Your task to perform on an android device: Go to eBay Image 0: 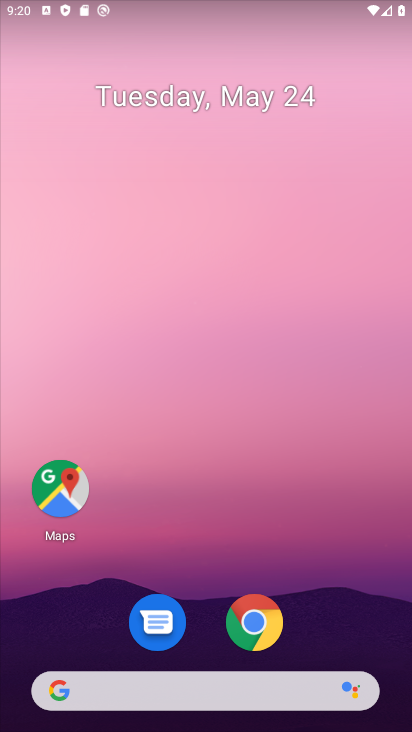
Step 0: press home button
Your task to perform on an android device: Go to eBay Image 1: 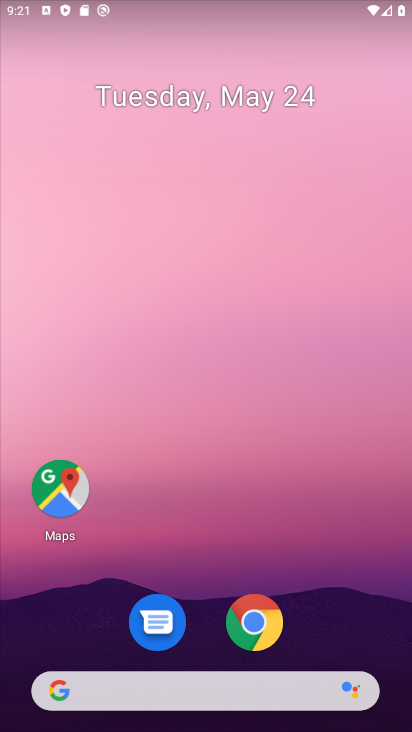
Step 1: drag from (308, 722) to (312, 42)
Your task to perform on an android device: Go to eBay Image 2: 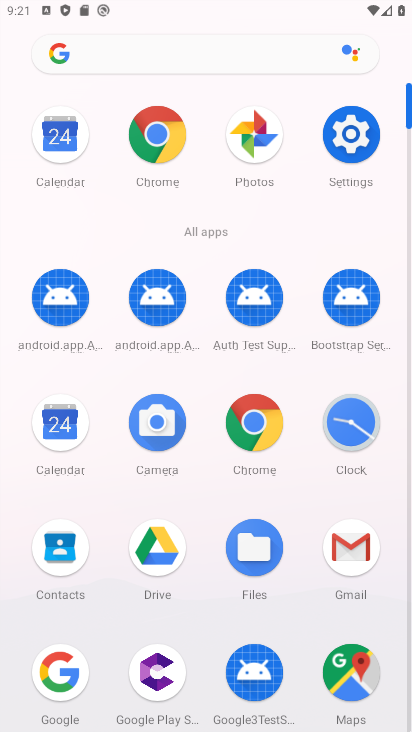
Step 2: click (171, 150)
Your task to perform on an android device: Go to eBay Image 3: 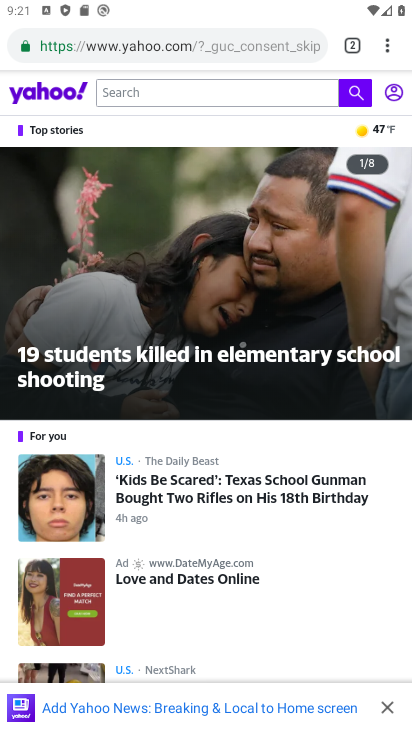
Step 3: click (179, 44)
Your task to perform on an android device: Go to eBay Image 4: 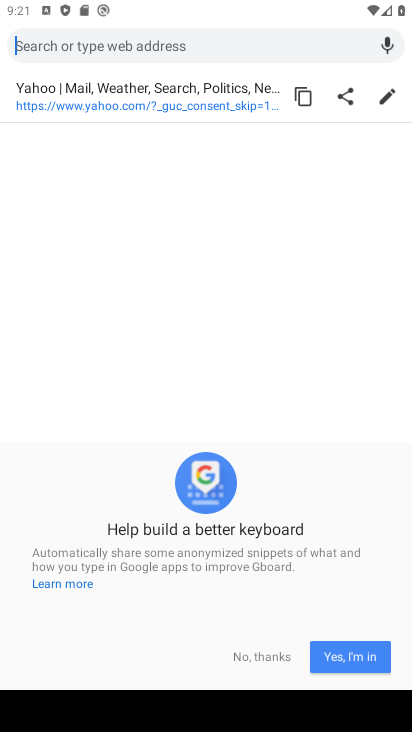
Step 4: click (247, 648)
Your task to perform on an android device: Go to eBay Image 5: 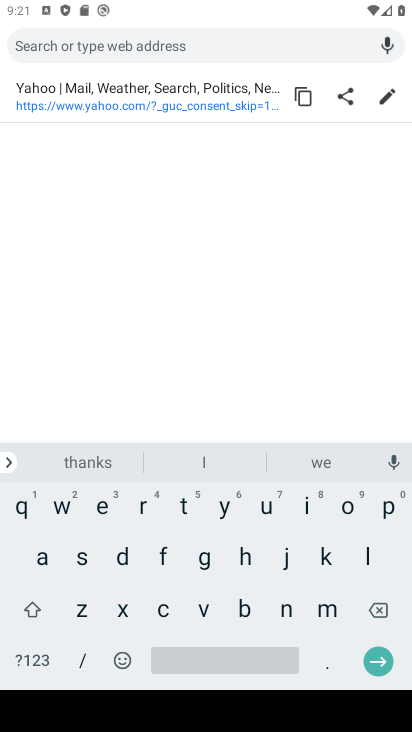
Step 5: click (101, 512)
Your task to perform on an android device: Go to eBay Image 6: 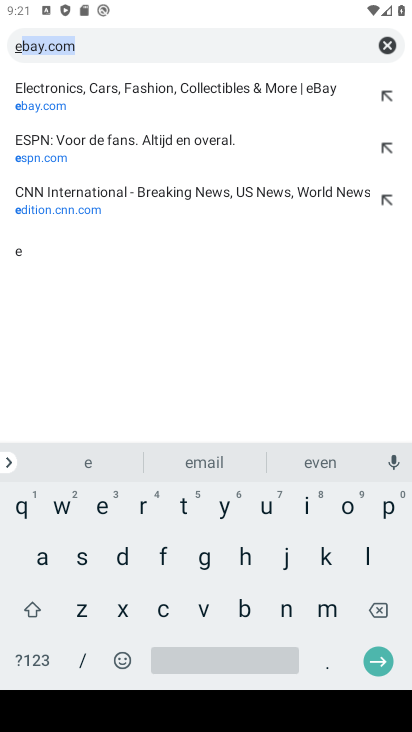
Step 6: click (242, 611)
Your task to perform on an android device: Go to eBay Image 7: 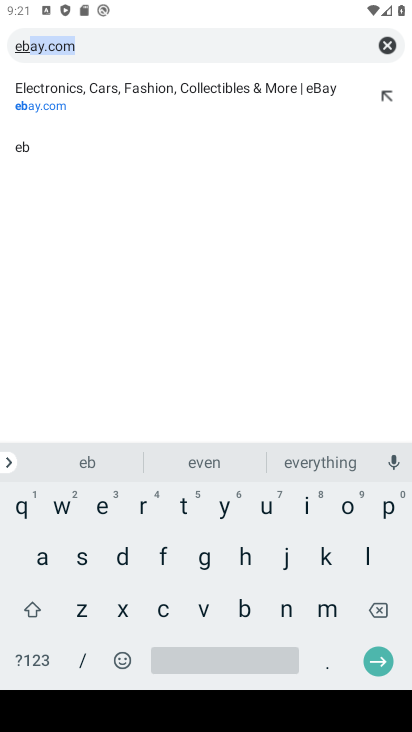
Step 7: click (143, 51)
Your task to perform on an android device: Go to eBay Image 8: 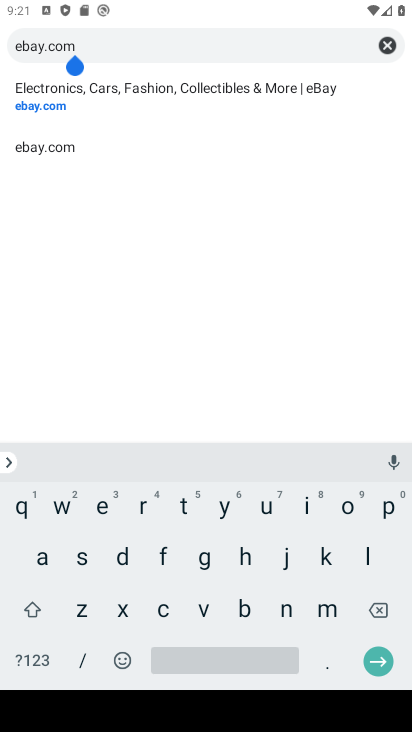
Step 8: click (378, 666)
Your task to perform on an android device: Go to eBay Image 9: 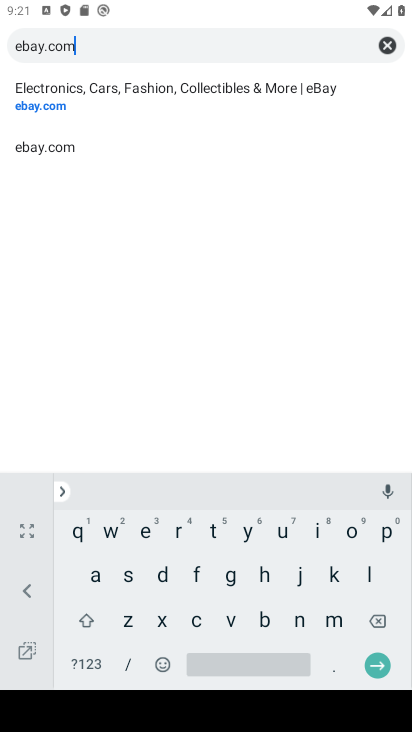
Step 9: click (379, 646)
Your task to perform on an android device: Go to eBay Image 10: 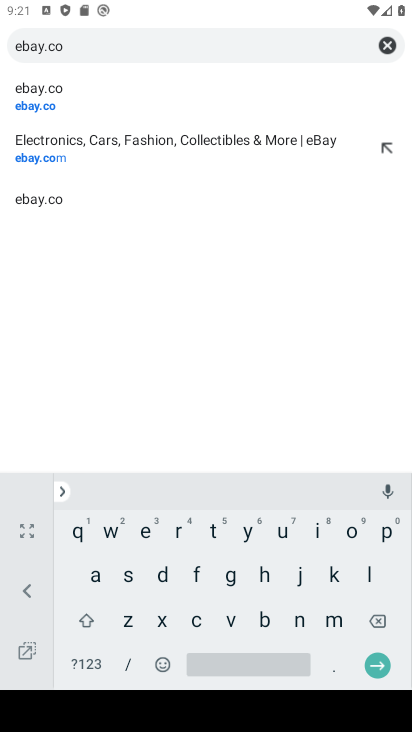
Step 10: click (339, 626)
Your task to perform on an android device: Go to eBay Image 11: 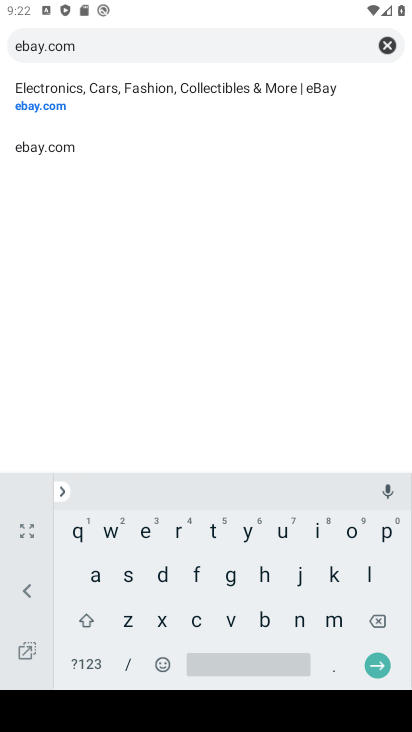
Step 11: click (381, 665)
Your task to perform on an android device: Go to eBay Image 12: 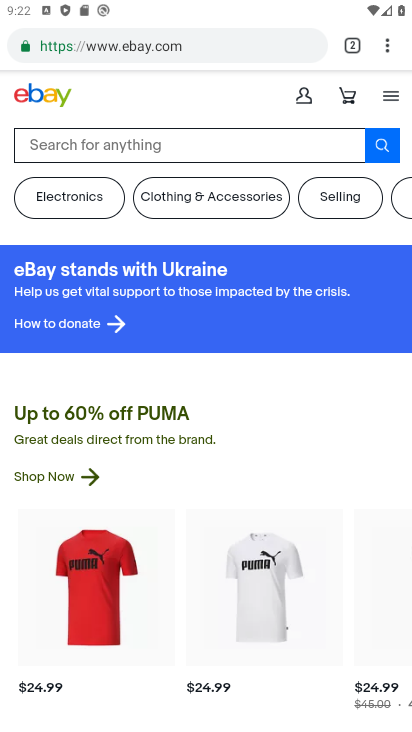
Step 12: task complete